Your task to perform on an android device: turn on data saver in the chrome app Image 0: 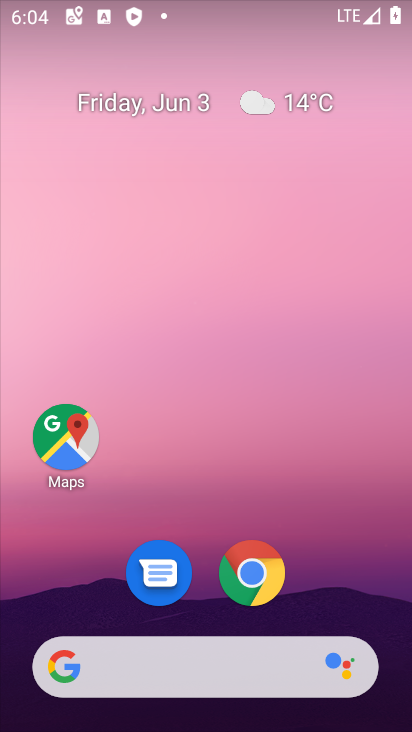
Step 0: drag from (178, 503) to (202, 111)
Your task to perform on an android device: turn on data saver in the chrome app Image 1: 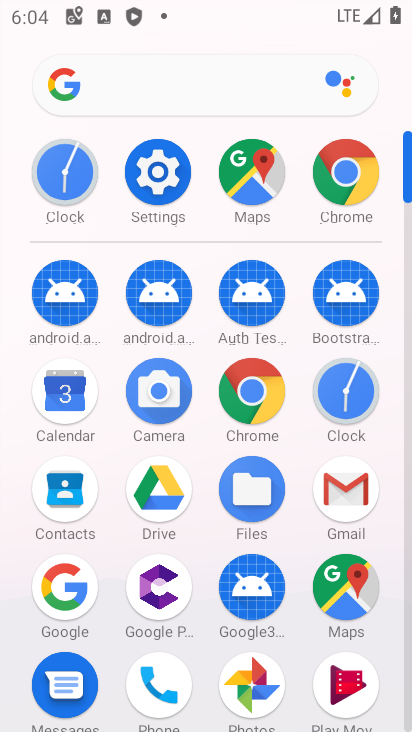
Step 1: click (256, 395)
Your task to perform on an android device: turn on data saver in the chrome app Image 2: 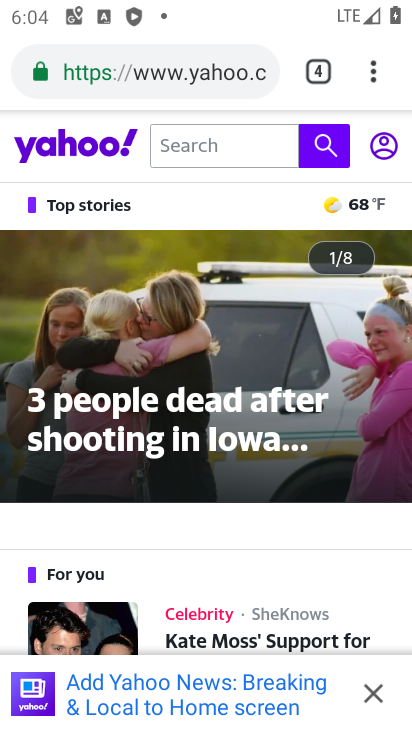
Step 2: drag from (365, 78) to (180, 567)
Your task to perform on an android device: turn on data saver in the chrome app Image 3: 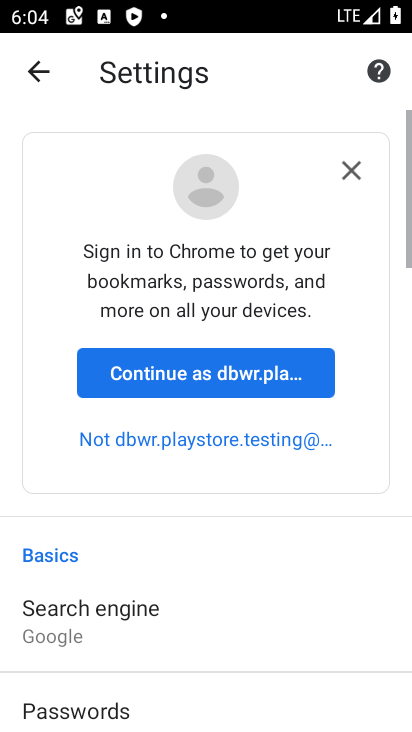
Step 3: drag from (200, 635) to (313, 29)
Your task to perform on an android device: turn on data saver in the chrome app Image 4: 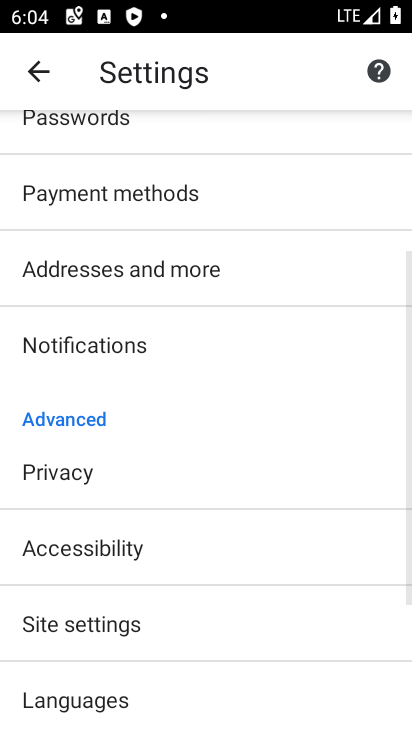
Step 4: drag from (165, 611) to (240, 369)
Your task to perform on an android device: turn on data saver in the chrome app Image 5: 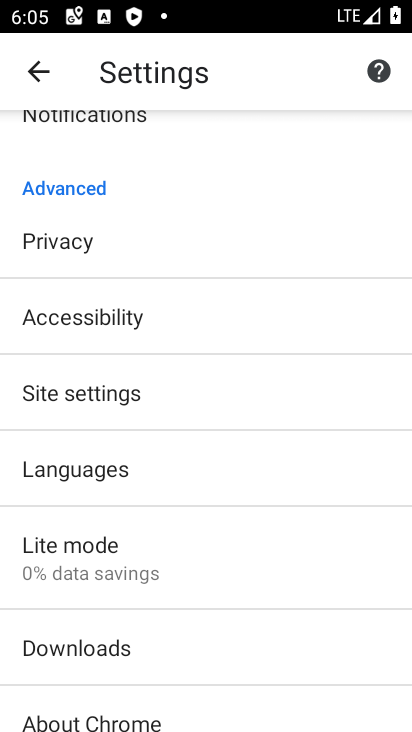
Step 5: click (175, 582)
Your task to perform on an android device: turn on data saver in the chrome app Image 6: 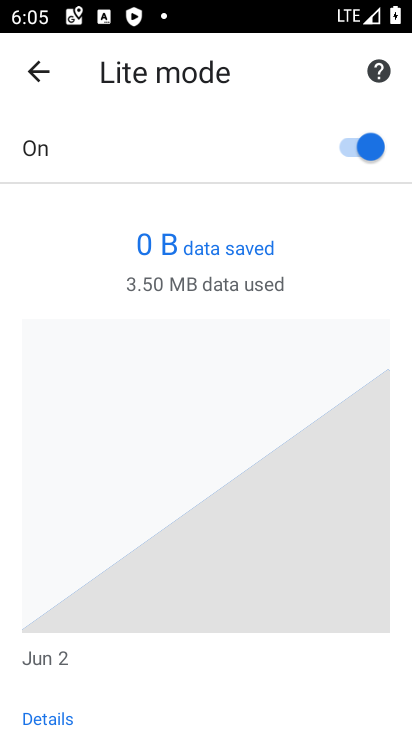
Step 6: task complete